Your task to perform on an android device: open app "Spotify: Music and Podcasts" (install if not already installed) Image 0: 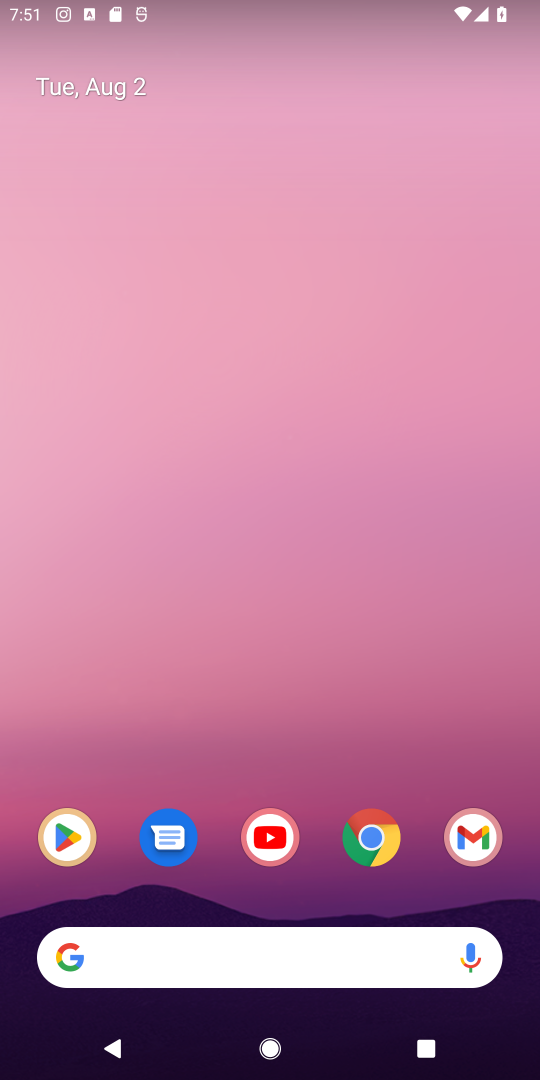
Step 0: click (73, 846)
Your task to perform on an android device: open app "Spotify: Music and Podcasts" (install if not already installed) Image 1: 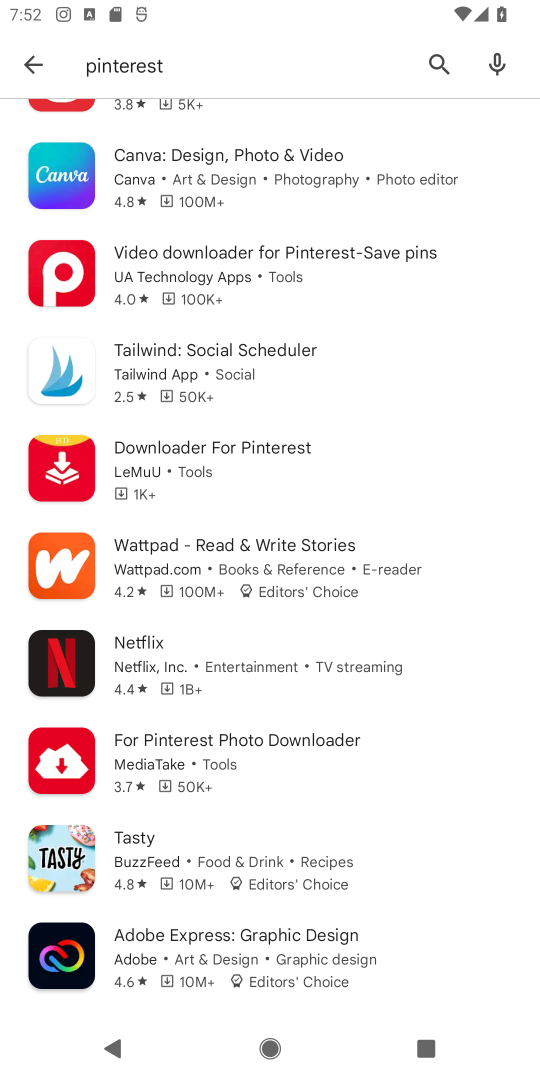
Step 1: click (435, 62)
Your task to perform on an android device: open app "Spotify: Music and Podcasts" (install if not already installed) Image 2: 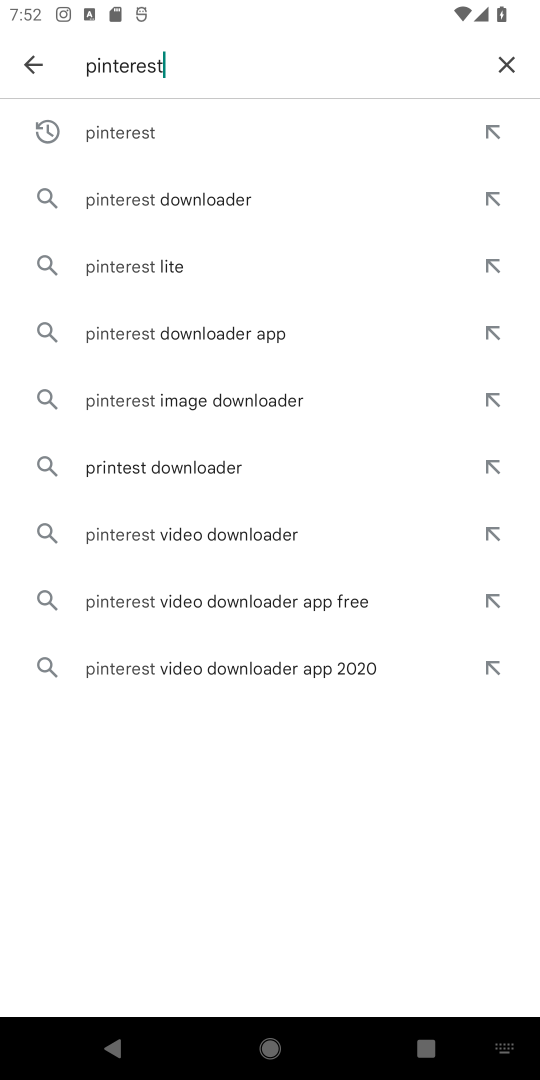
Step 2: click (509, 51)
Your task to perform on an android device: open app "Spotify: Music and Podcasts" (install if not already installed) Image 3: 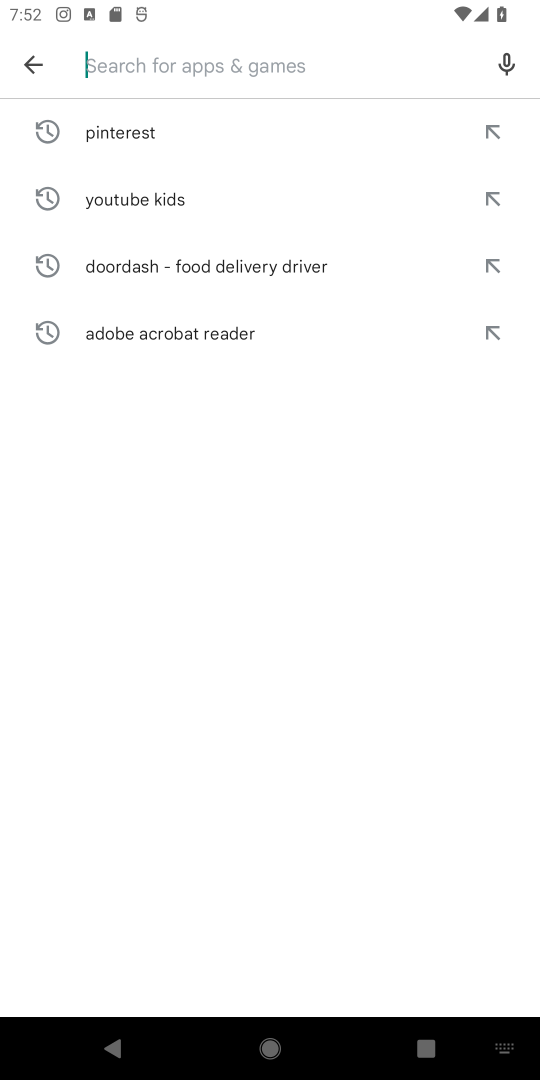
Step 3: type "Spotify: Music and Podcasts"
Your task to perform on an android device: open app "Spotify: Music and Podcasts" (install if not already installed) Image 4: 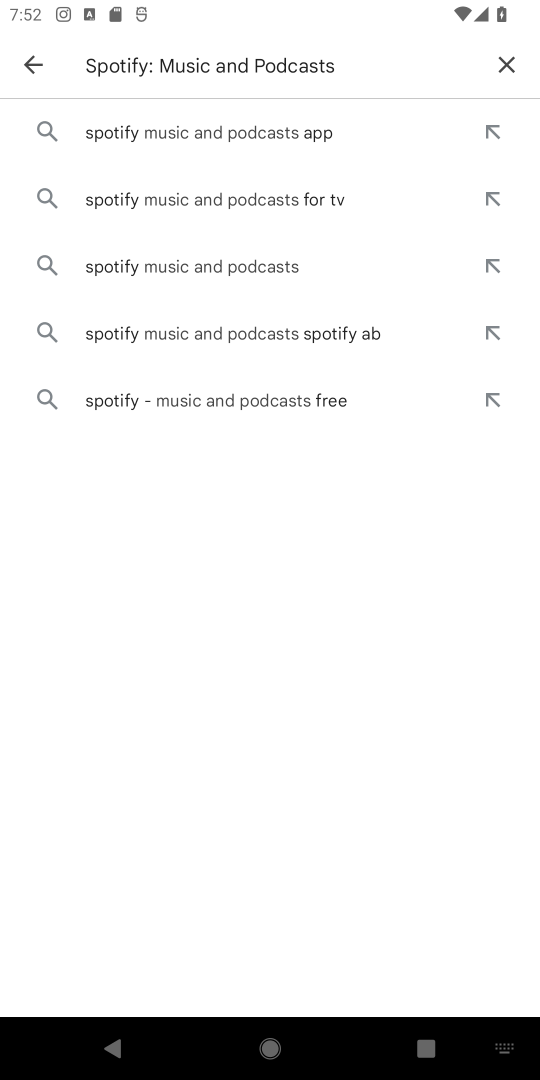
Step 4: click (186, 139)
Your task to perform on an android device: open app "Spotify: Music and Podcasts" (install if not already installed) Image 5: 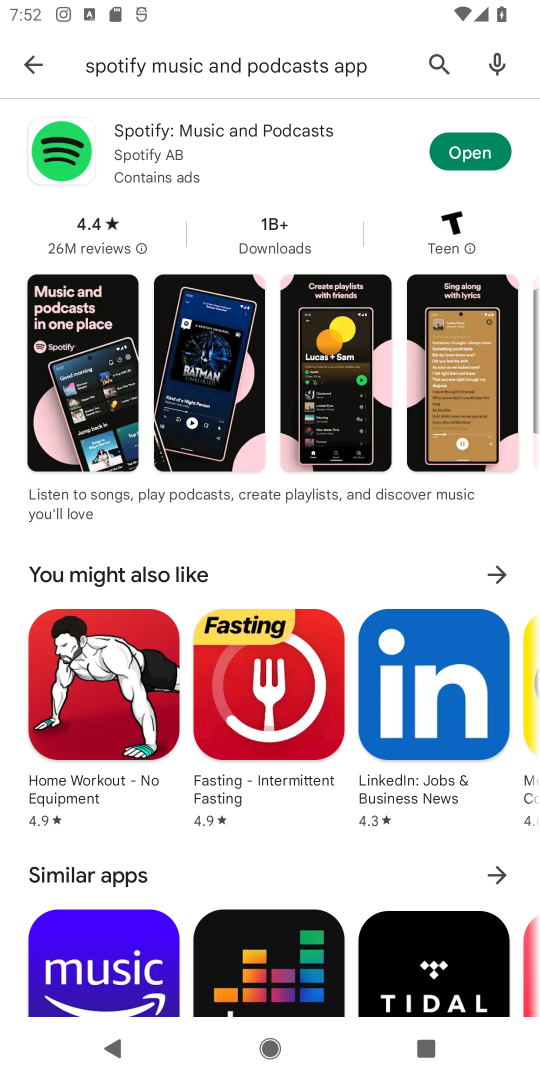
Step 5: click (457, 155)
Your task to perform on an android device: open app "Spotify: Music and Podcasts" (install if not already installed) Image 6: 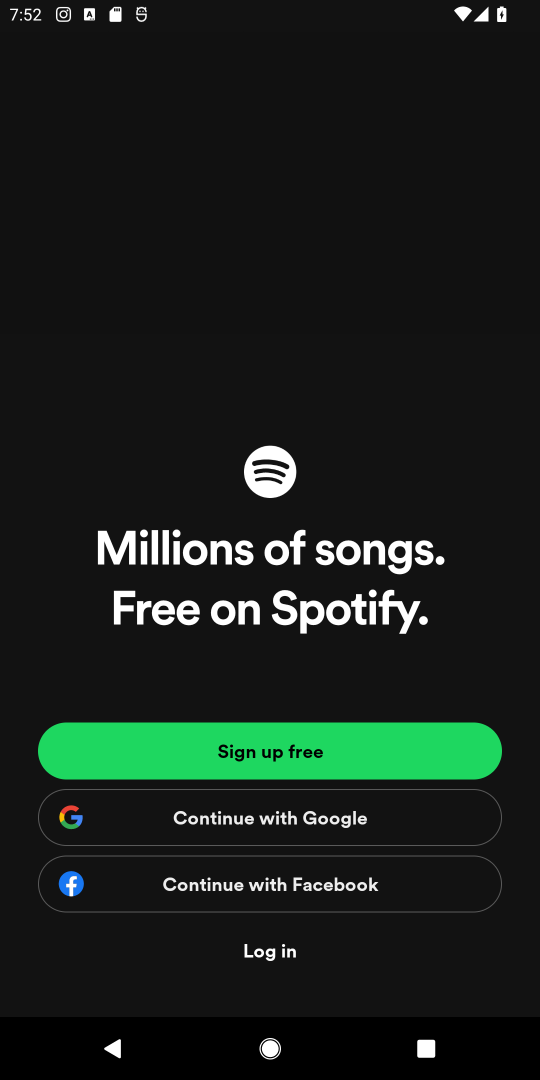
Step 6: task complete